Your task to perform on an android device: When is my next appointment? Image 0: 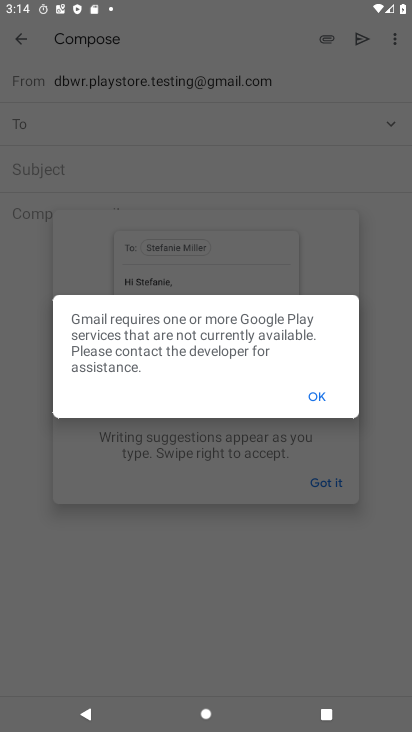
Step 0: press home button
Your task to perform on an android device: When is my next appointment? Image 1: 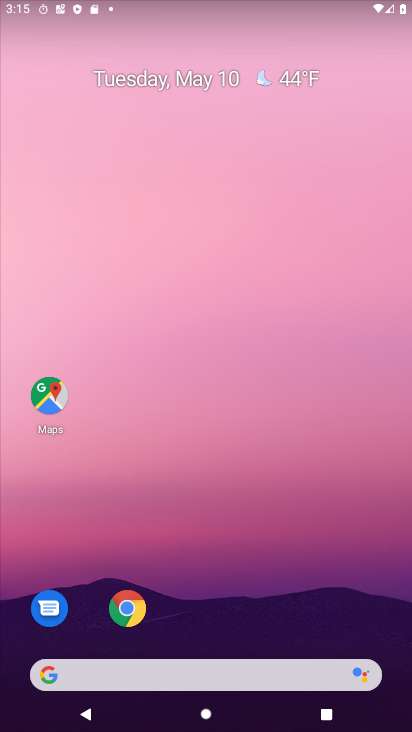
Step 1: drag from (328, 629) to (380, 0)
Your task to perform on an android device: When is my next appointment? Image 2: 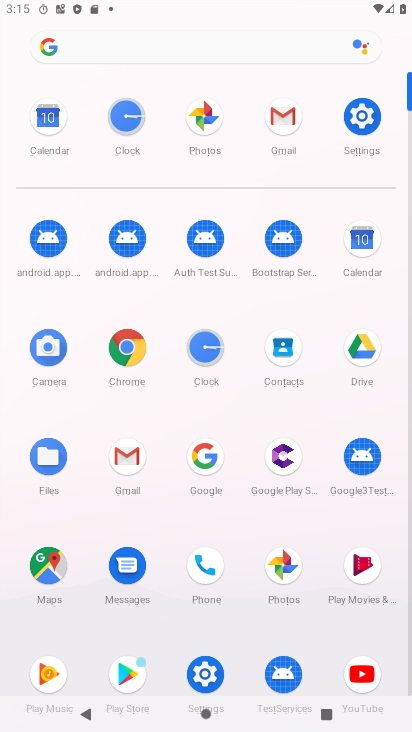
Step 2: click (54, 124)
Your task to perform on an android device: When is my next appointment? Image 3: 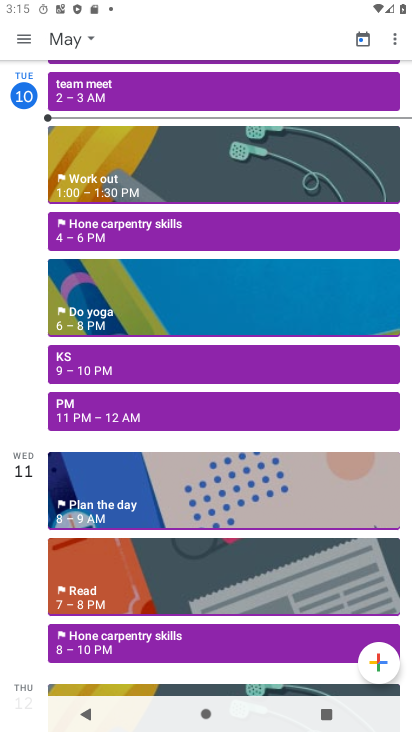
Step 3: drag from (168, 176) to (136, 357)
Your task to perform on an android device: When is my next appointment? Image 4: 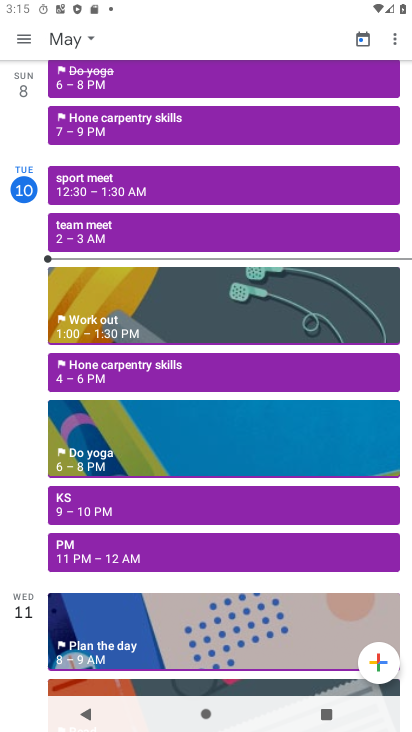
Step 4: click (105, 378)
Your task to perform on an android device: When is my next appointment? Image 5: 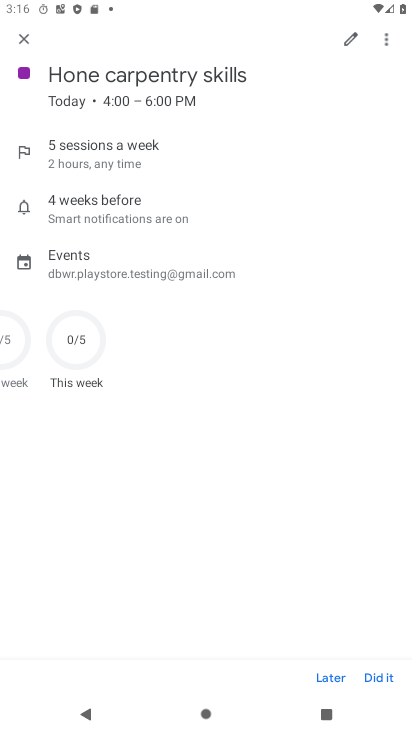
Step 5: task complete